Your task to perform on an android device: read, delete, or share a saved page in the chrome app Image 0: 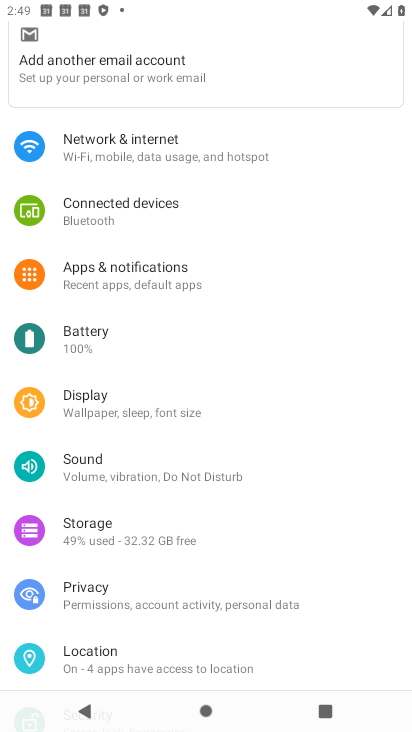
Step 0: task complete